Your task to perform on an android device: Open Reddit.com Image 0: 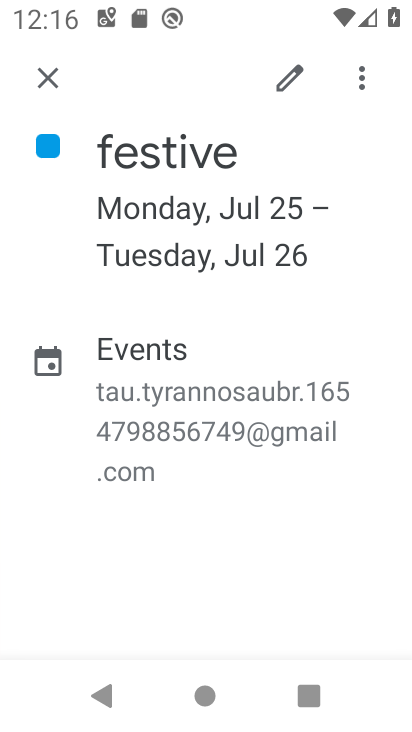
Step 0: press home button
Your task to perform on an android device: Open Reddit.com Image 1: 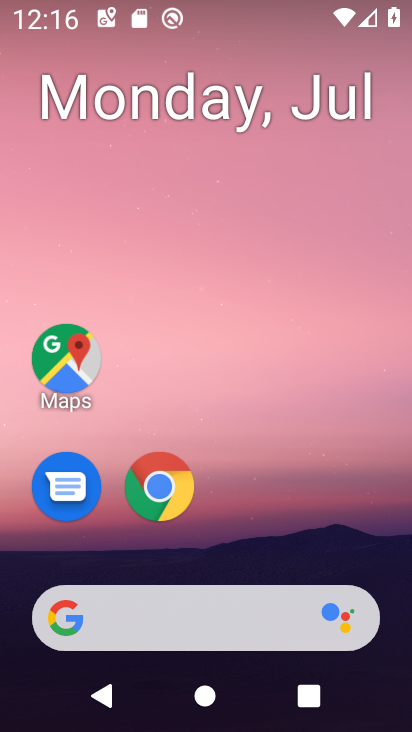
Step 1: drag from (382, 527) to (259, 318)
Your task to perform on an android device: Open Reddit.com Image 2: 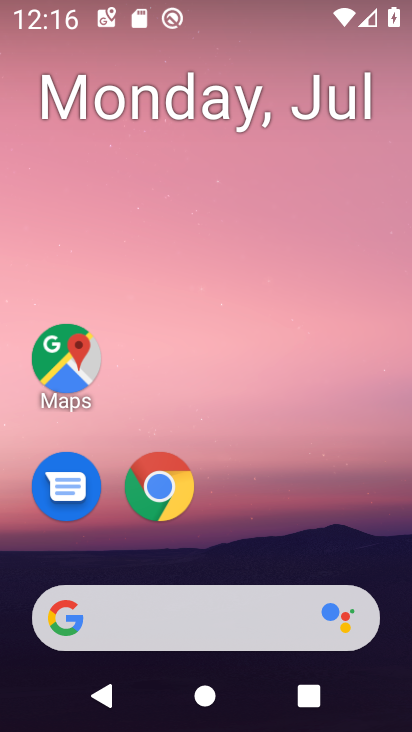
Step 2: drag from (370, 540) to (369, 52)
Your task to perform on an android device: Open Reddit.com Image 3: 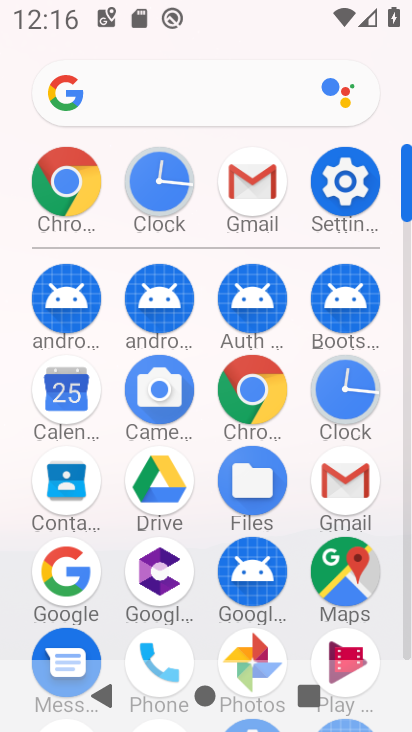
Step 3: click (254, 399)
Your task to perform on an android device: Open Reddit.com Image 4: 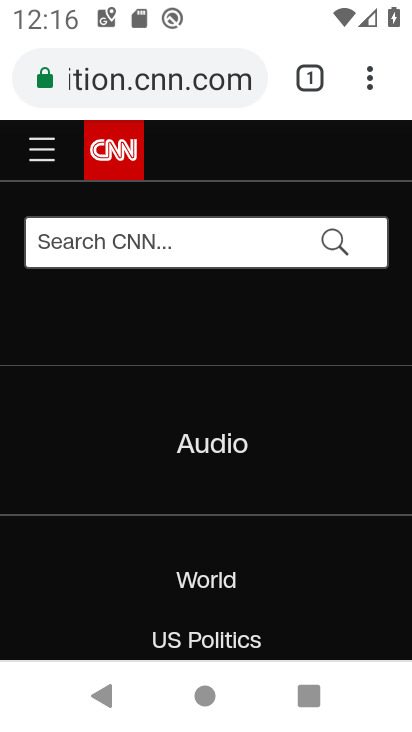
Step 4: click (216, 97)
Your task to perform on an android device: Open Reddit.com Image 5: 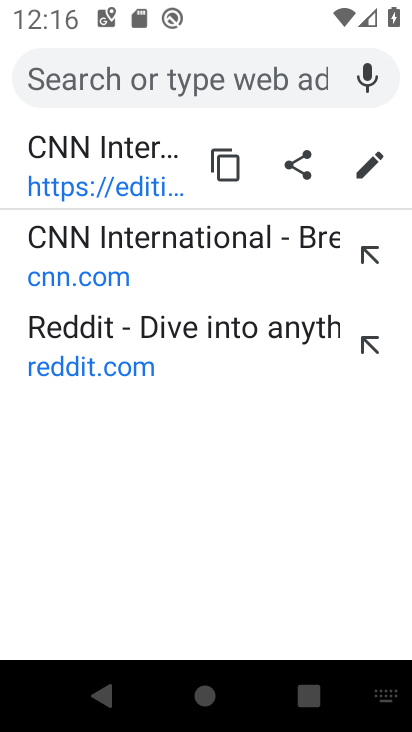
Step 5: type "reddit.com"
Your task to perform on an android device: Open Reddit.com Image 6: 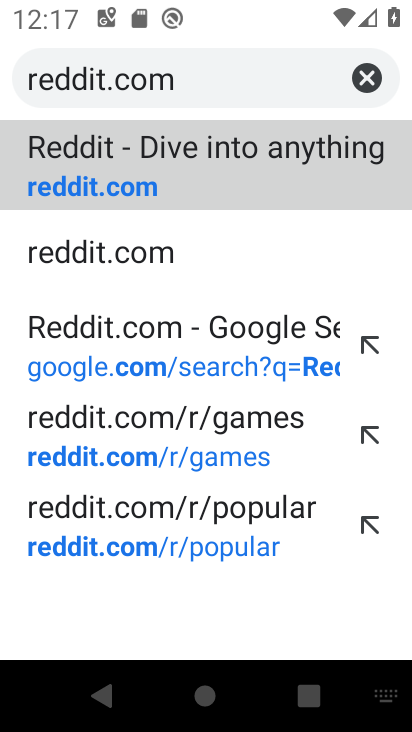
Step 6: click (262, 186)
Your task to perform on an android device: Open Reddit.com Image 7: 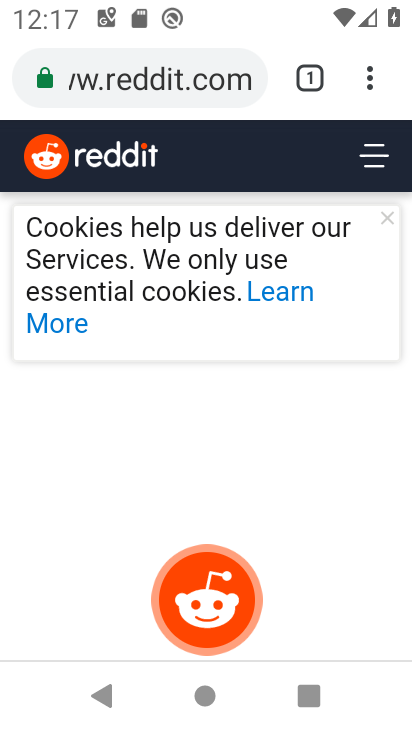
Step 7: task complete